Your task to perform on an android device: open chrome and create a bookmark for the current page Image 0: 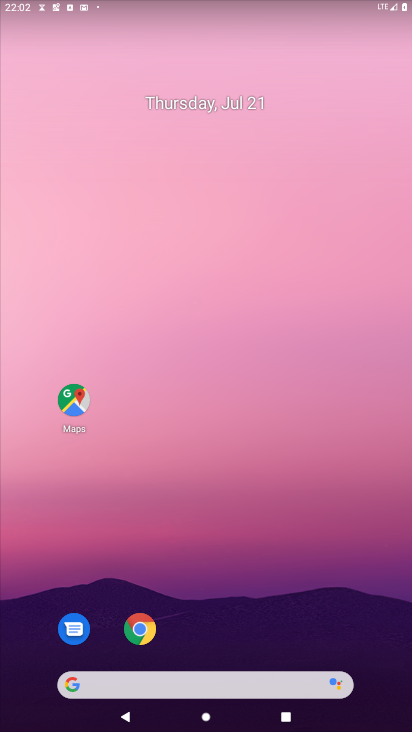
Step 0: drag from (280, 615) to (257, 39)
Your task to perform on an android device: open chrome and create a bookmark for the current page Image 1: 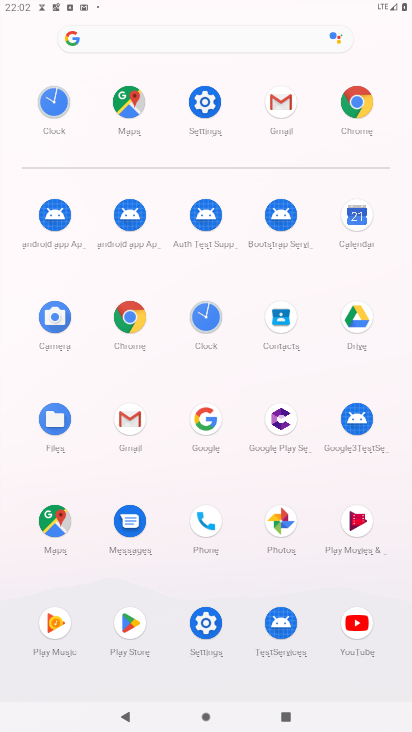
Step 1: click (131, 331)
Your task to perform on an android device: open chrome and create a bookmark for the current page Image 2: 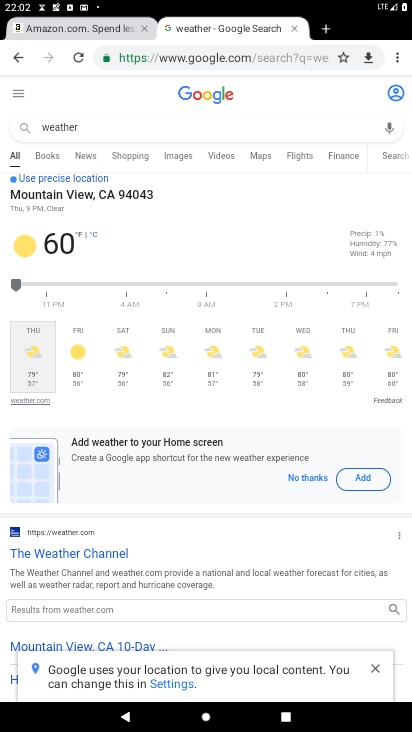
Step 2: click (399, 57)
Your task to perform on an android device: open chrome and create a bookmark for the current page Image 3: 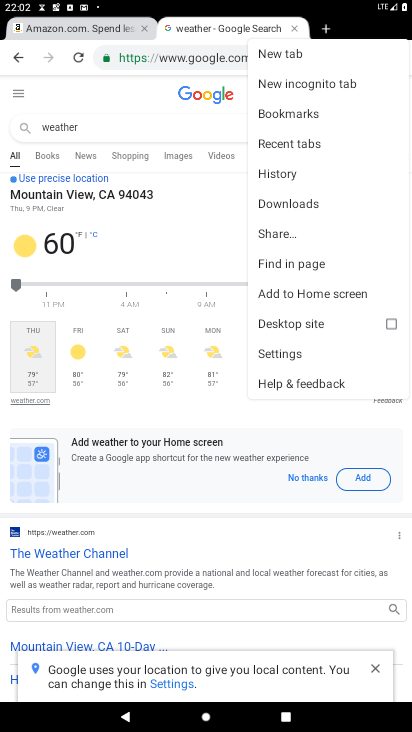
Step 3: click (149, 95)
Your task to perform on an android device: open chrome and create a bookmark for the current page Image 4: 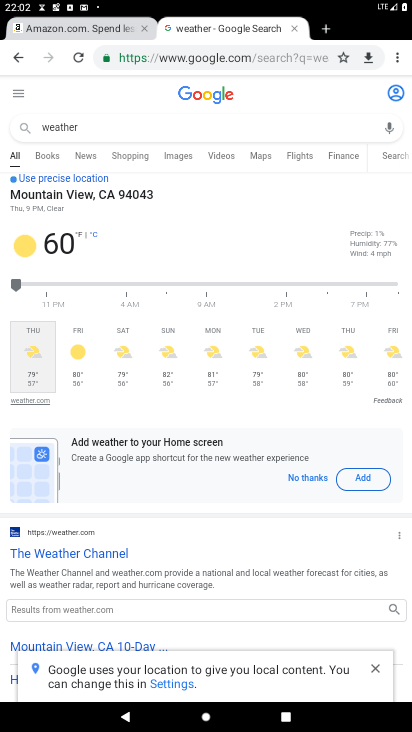
Step 4: click (340, 56)
Your task to perform on an android device: open chrome and create a bookmark for the current page Image 5: 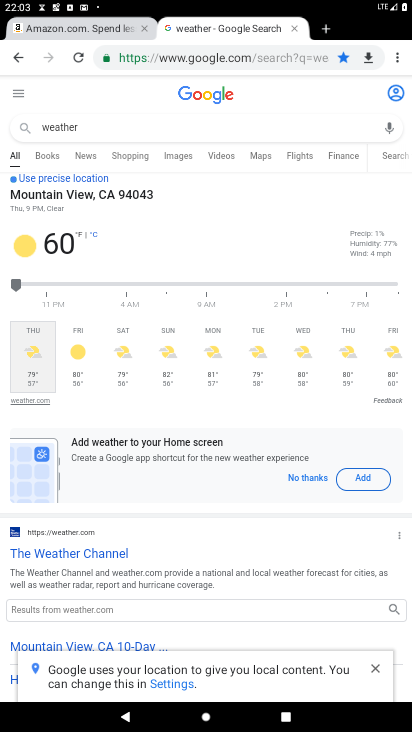
Step 5: click (406, 60)
Your task to perform on an android device: open chrome and create a bookmark for the current page Image 6: 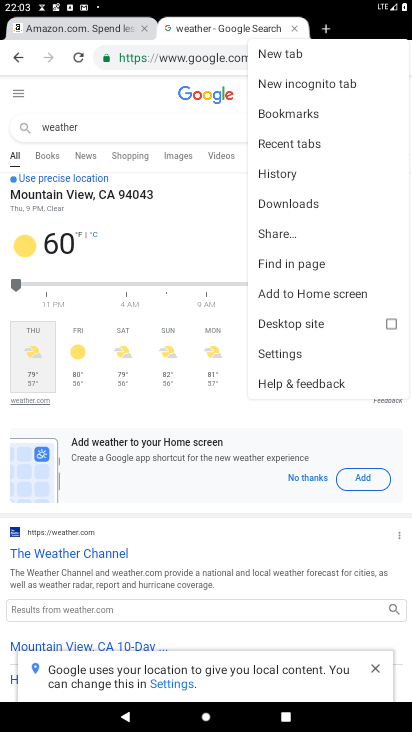
Step 6: task complete